Your task to perform on an android device: toggle wifi Image 0: 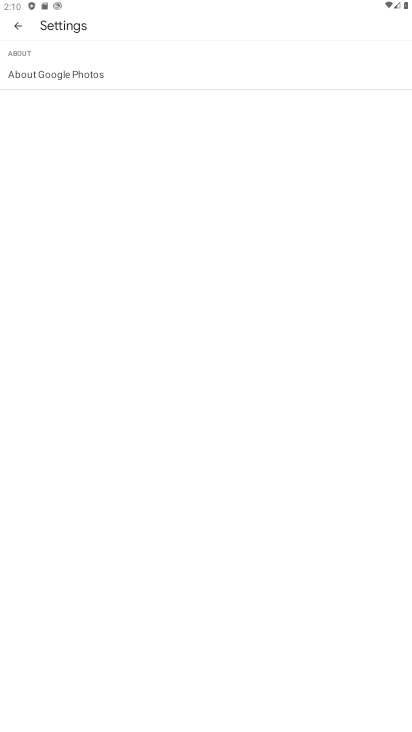
Step 0: click (17, 20)
Your task to perform on an android device: toggle wifi Image 1: 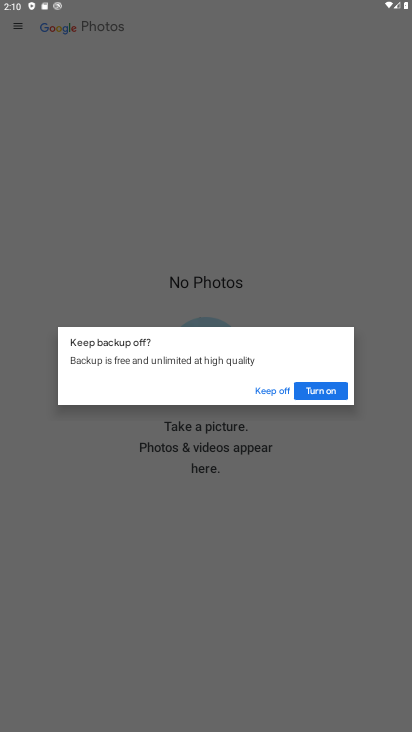
Step 1: click (272, 387)
Your task to perform on an android device: toggle wifi Image 2: 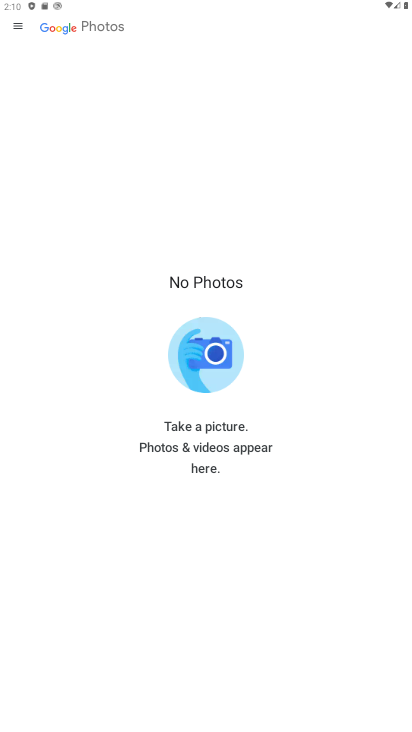
Step 2: press back button
Your task to perform on an android device: toggle wifi Image 3: 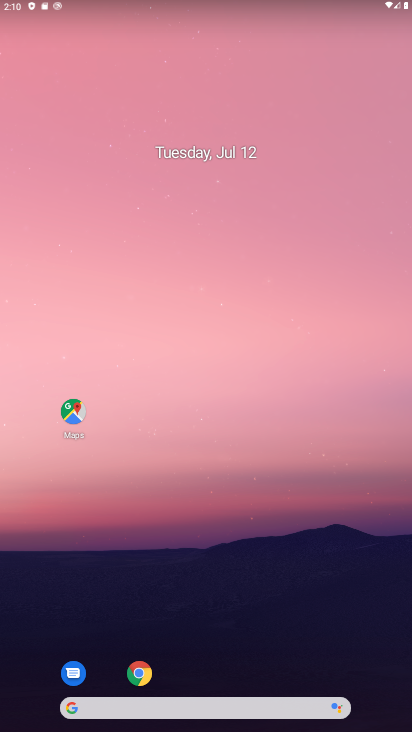
Step 3: drag from (214, 672) to (155, 169)
Your task to perform on an android device: toggle wifi Image 4: 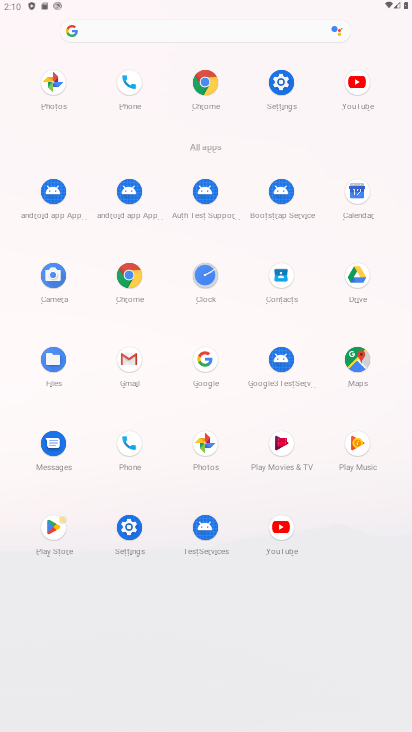
Step 4: click (274, 91)
Your task to perform on an android device: toggle wifi Image 5: 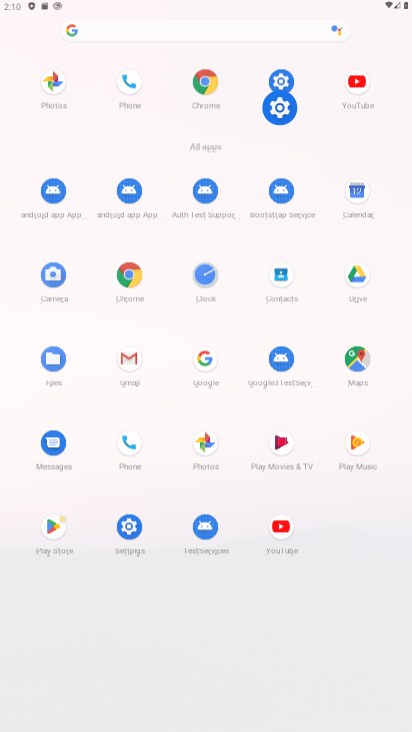
Step 5: click (274, 89)
Your task to perform on an android device: toggle wifi Image 6: 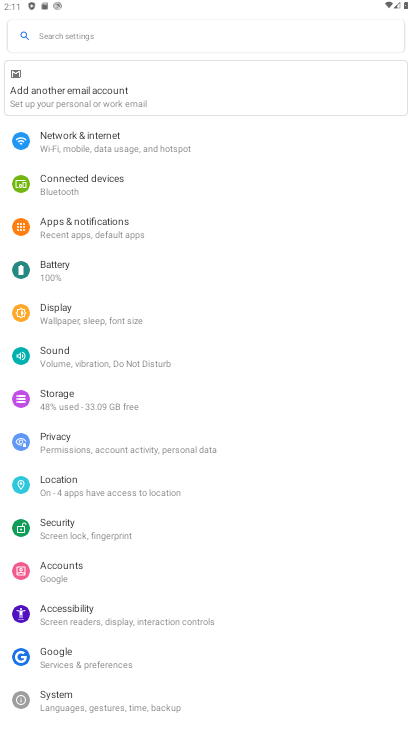
Step 6: click (78, 152)
Your task to perform on an android device: toggle wifi Image 7: 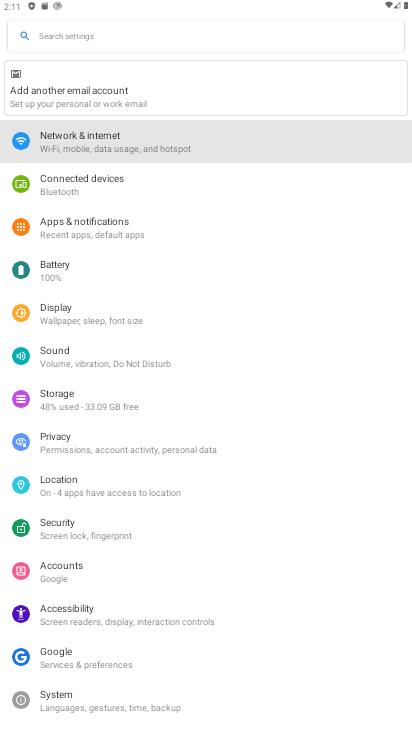
Step 7: click (78, 151)
Your task to perform on an android device: toggle wifi Image 8: 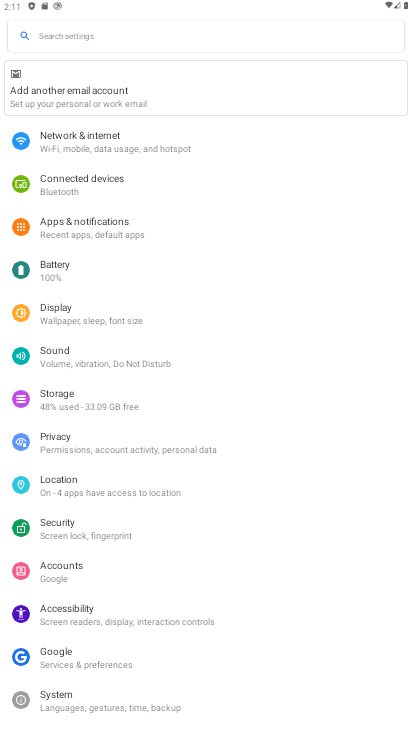
Step 8: click (87, 147)
Your task to perform on an android device: toggle wifi Image 9: 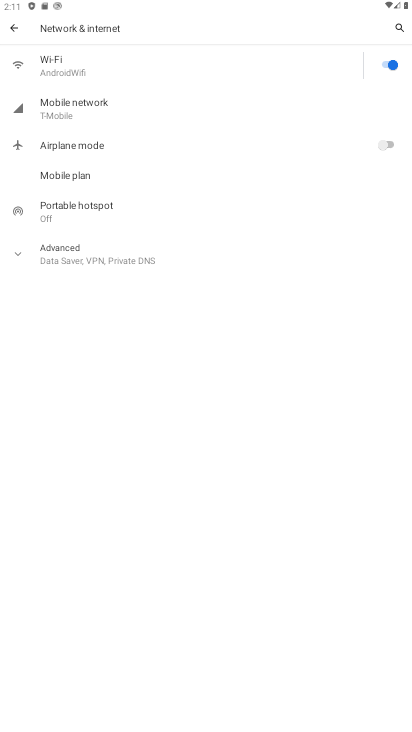
Step 9: click (396, 64)
Your task to perform on an android device: toggle wifi Image 10: 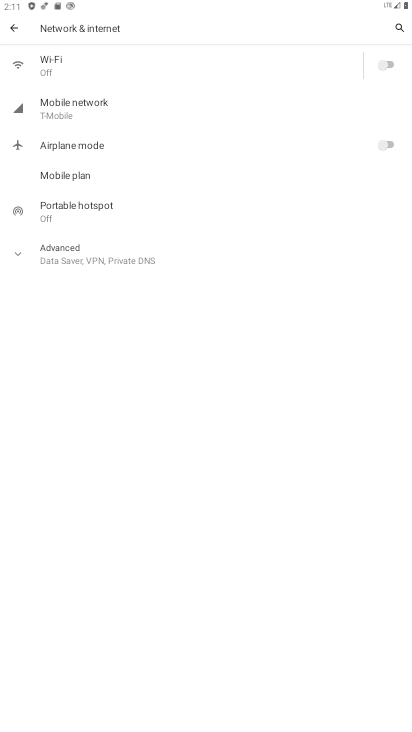
Step 10: task complete